Your task to perform on an android device: What's the weather going to be this weekend? Image 0: 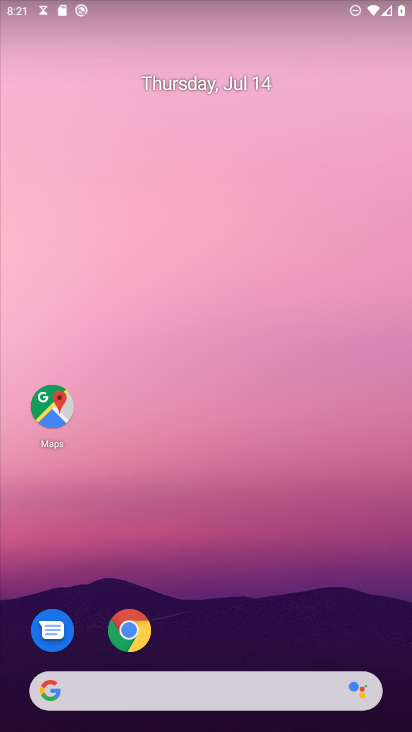
Step 0: drag from (286, 599) to (347, 189)
Your task to perform on an android device: What's the weather going to be this weekend? Image 1: 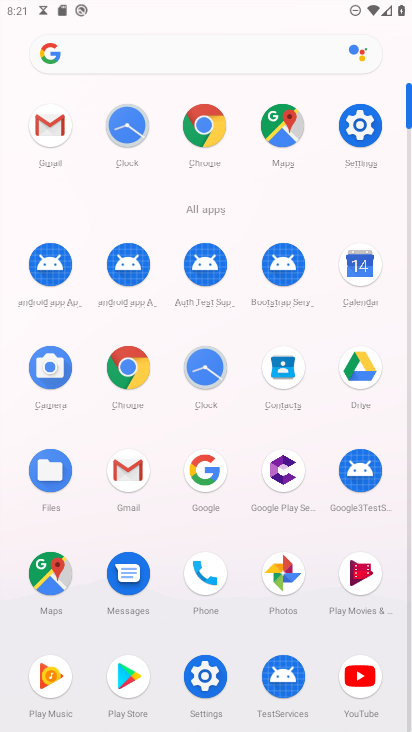
Step 1: click (199, 49)
Your task to perform on an android device: What's the weather going to be this weekend? Image 2: 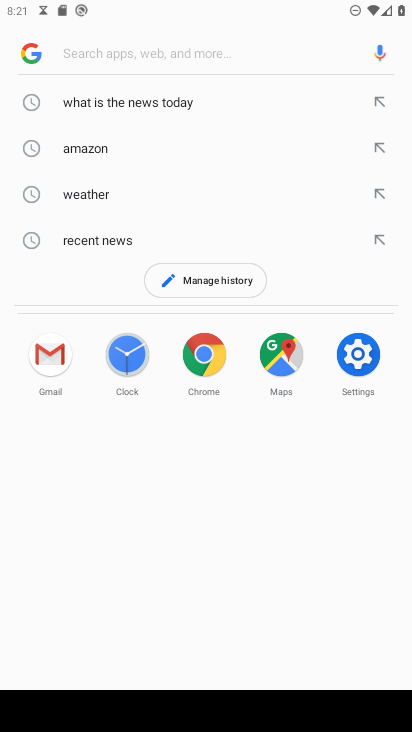
Step 2: type "What's the weather going to be this weekend ?"
Your task to perform on an android device: What's the weather going to be this weekend? Image 3: 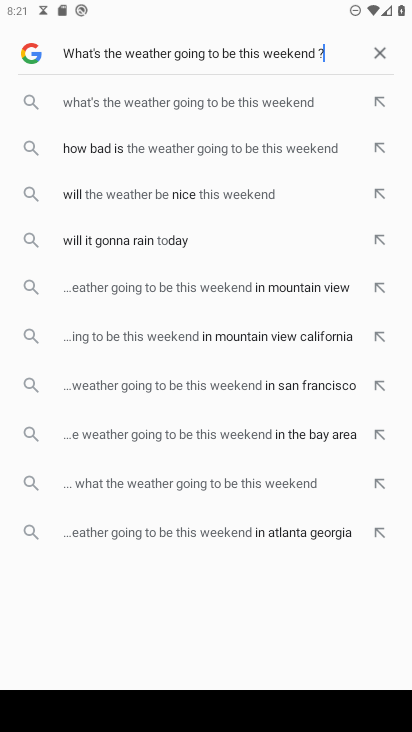
Step 3: click (291, 96)
Your task to perform on an android device: What's the weather going to be this weekend? Image 4: 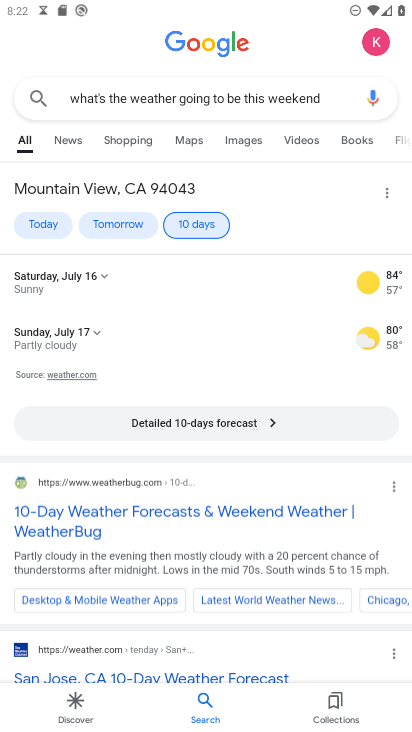
Step 4: task complete